Your task to perform on an android device: Toggle the flashlight Image 0: 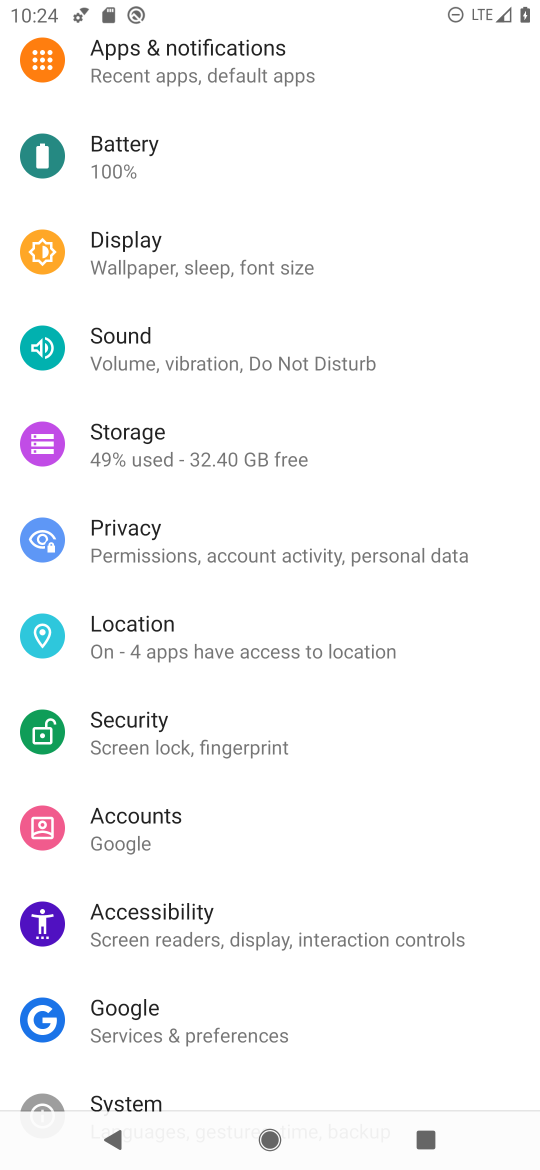
Step 0: click (257, 255)
Your task to perform on an android device: Toggle the flashlight Image 1: 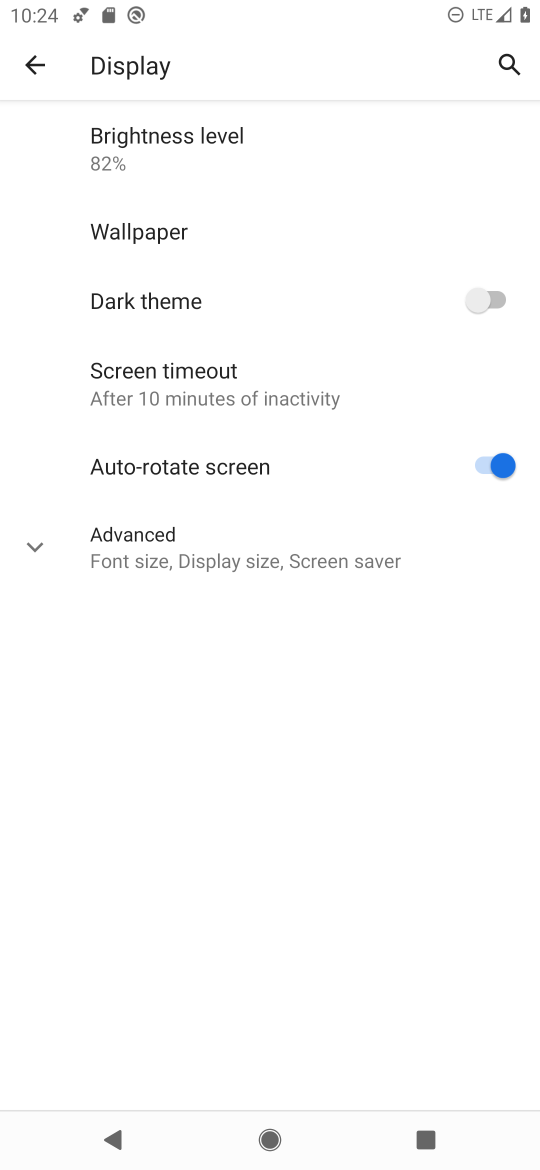
Step 1: click (189, 382)
Your task to perform on an android device: Toggle the flashlight Image 2: 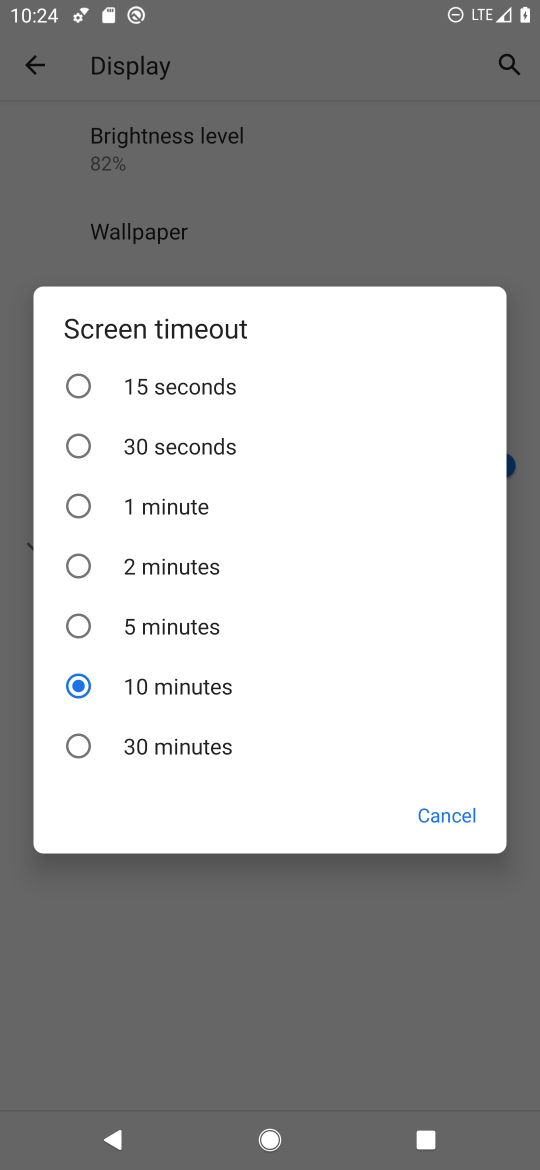
Step 2: task complete